Your task to perform on an android device: Open Reddit.com Image 0: 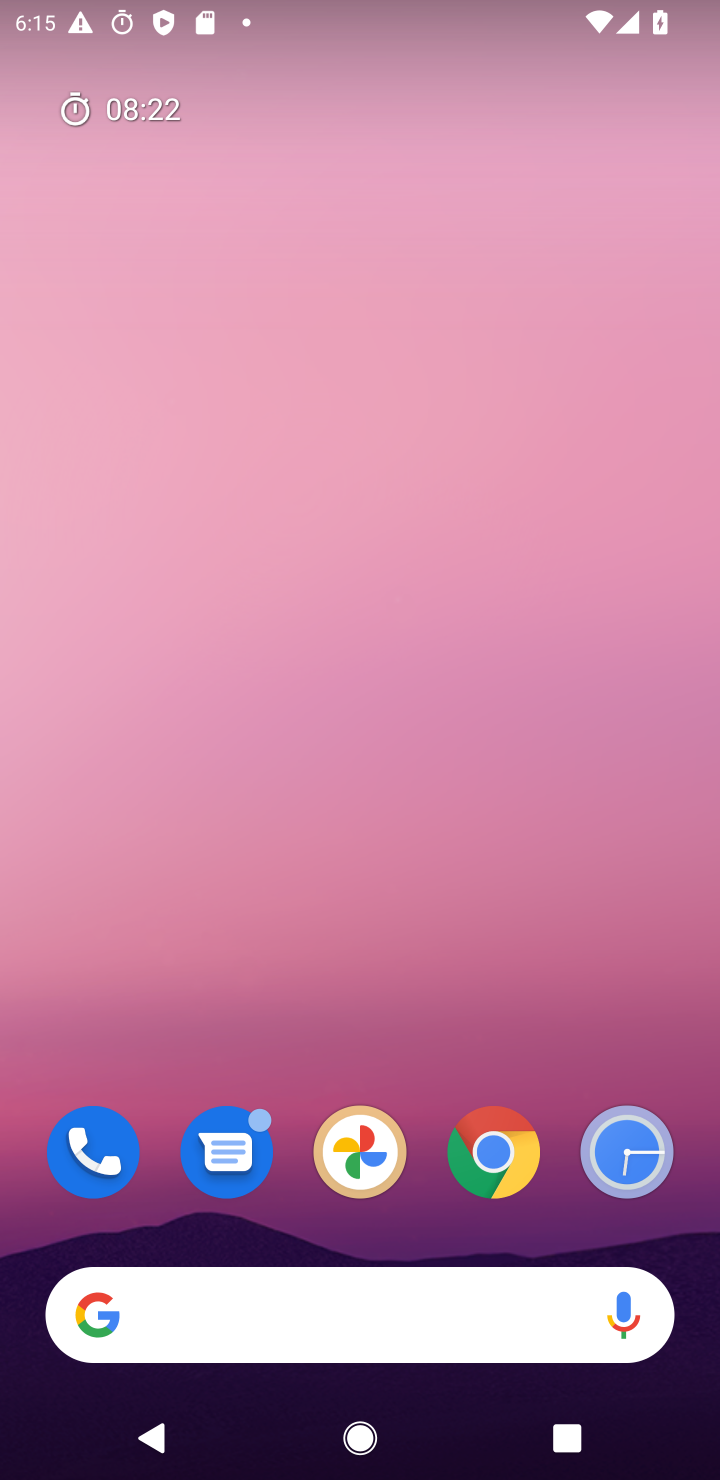
Step 0: click (496, 1138)
Your task to perform on an android device: Open Reddit.com Image 1: 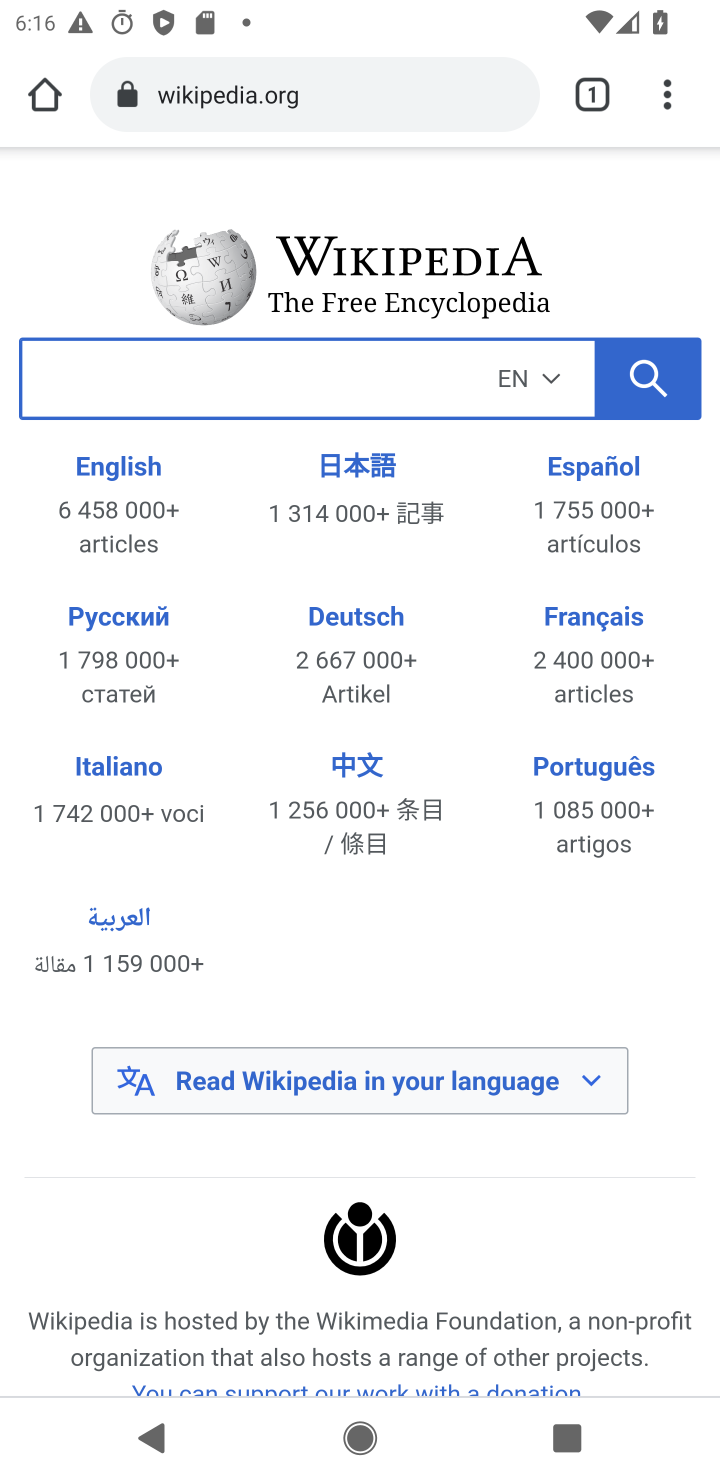
Step 1: click (286, 91)
Your task to perform on an android device: Open Reddit.com Image 2: 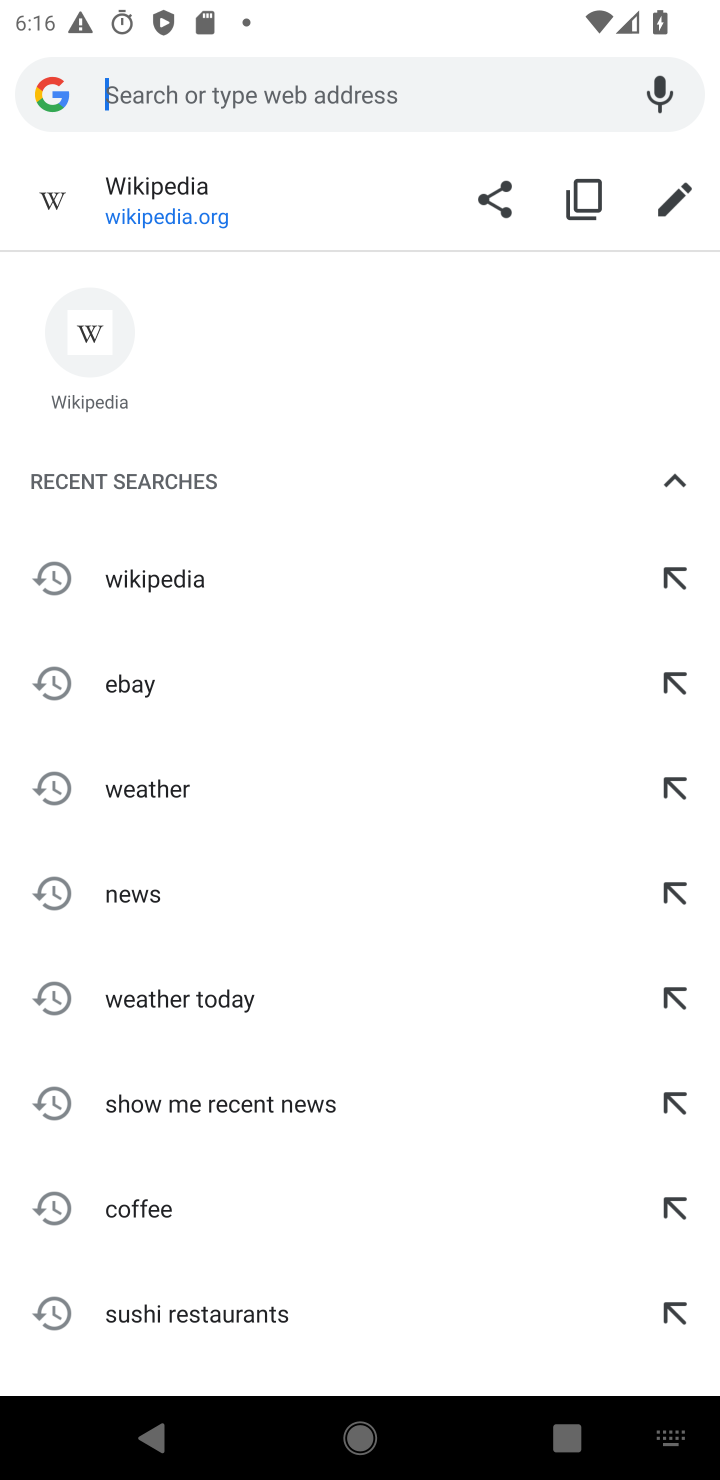
Step 2: type " Reddit.com"
Your task to perform on an android device: Open Reddit.com Image 3: 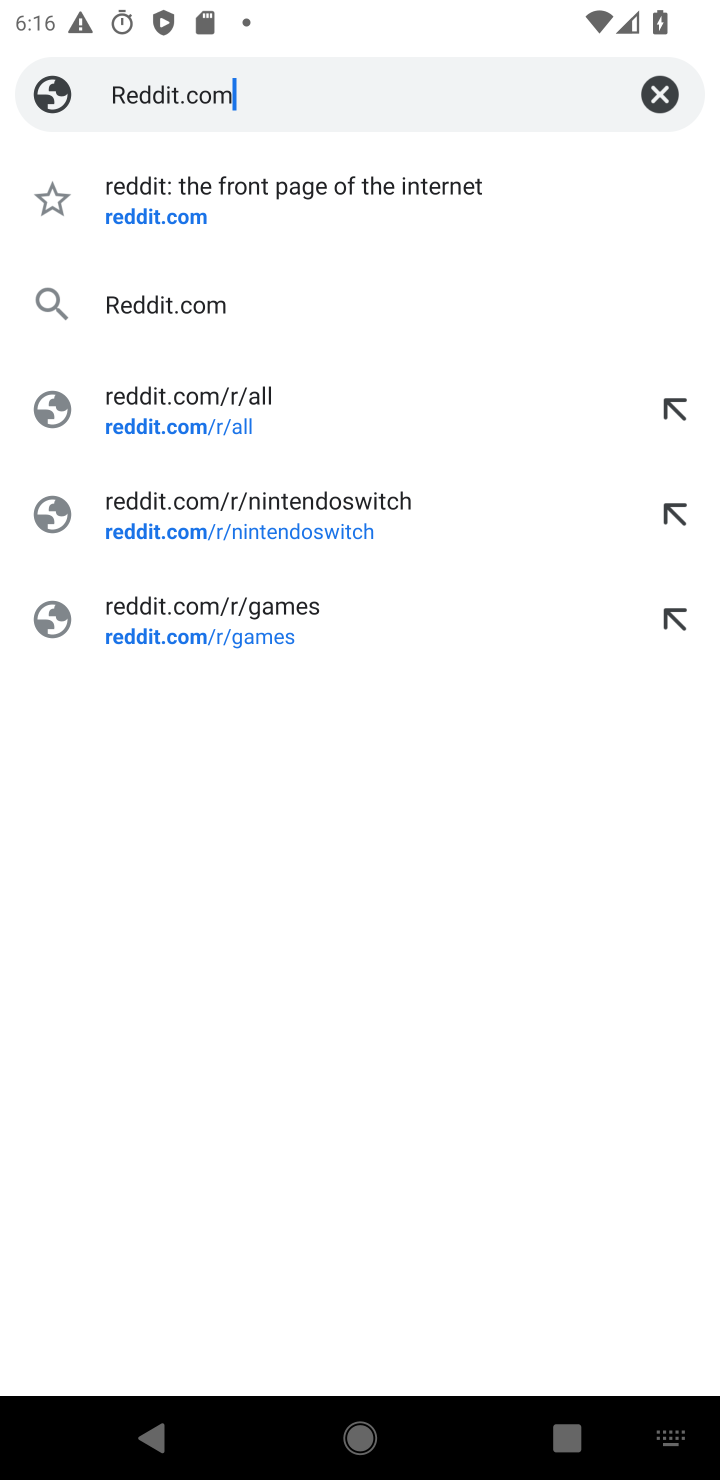
Step 3: click (161, 209)
Your task to perform on an android device: Open Reddit.com Image 4: 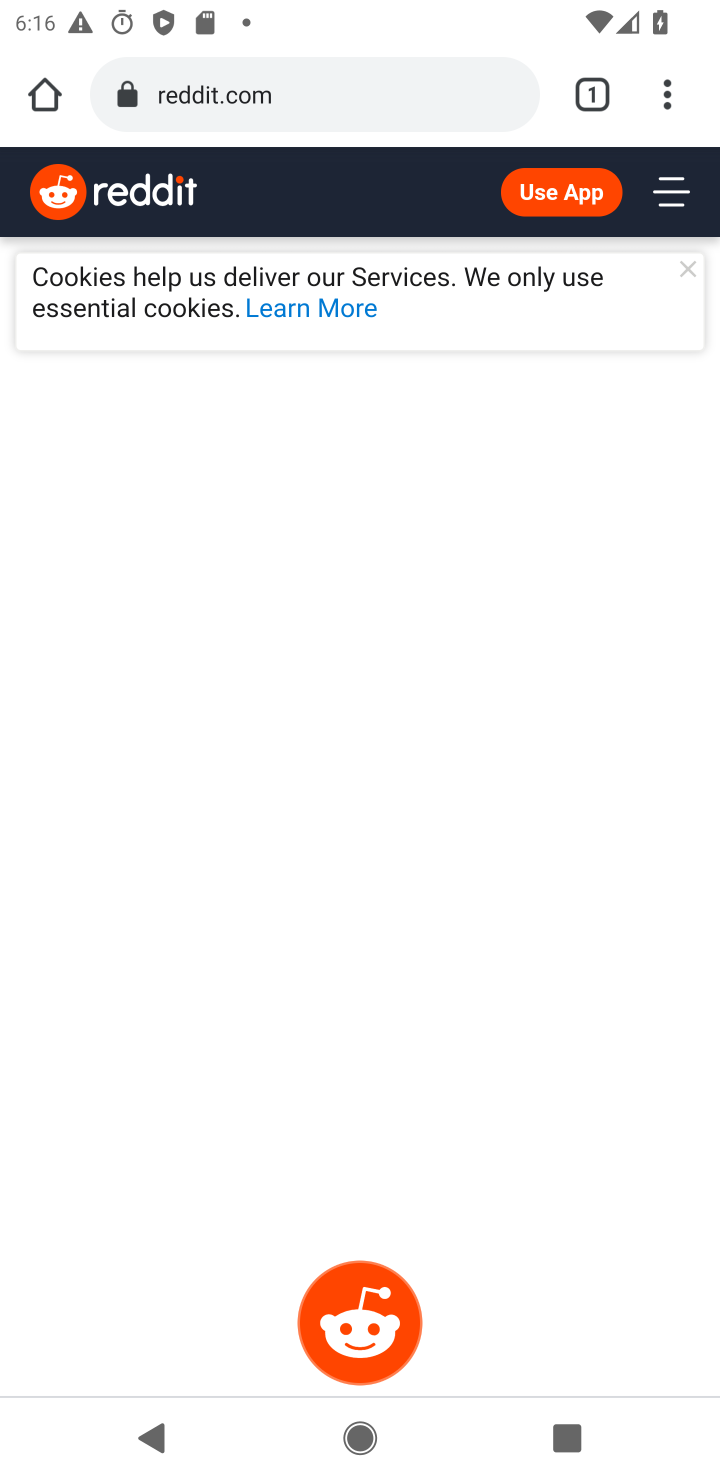
Step 4: task complete